Your task to perform on an android device: Open Youtube and go to "Your channel" Image 0: 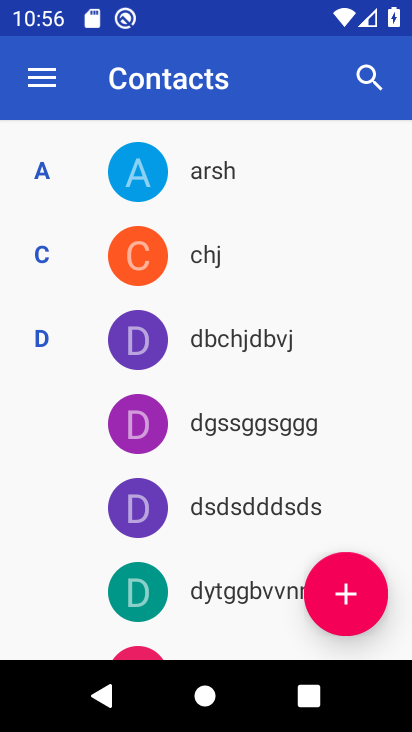
Step 0: press back button
Your task to perform on an android device: Open Youtube and go to "Your channel" Image 1: 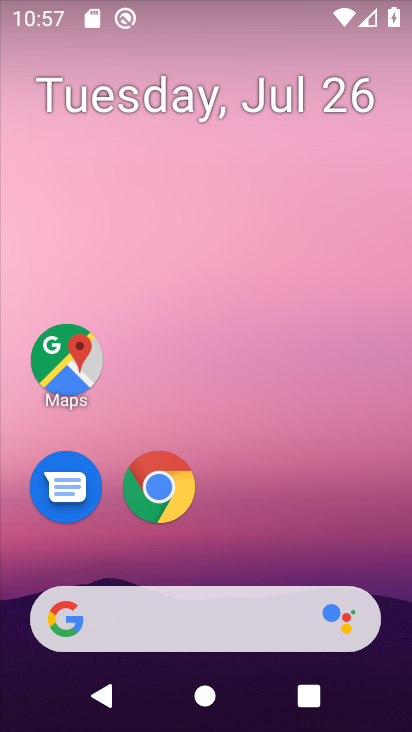
Step 1: drag from (256, 566) to (315, 0)
Your task to perform on an android device: Open Youtube and go to "Your channel" Image 2: 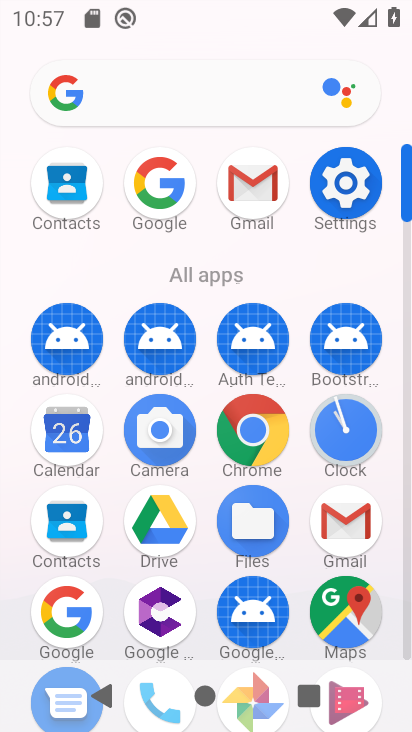
Step 2: drag from (161, 575) to (249, 30)
Your task to perform on an android device: Open Youtube and go to "Your channel" Image 3: 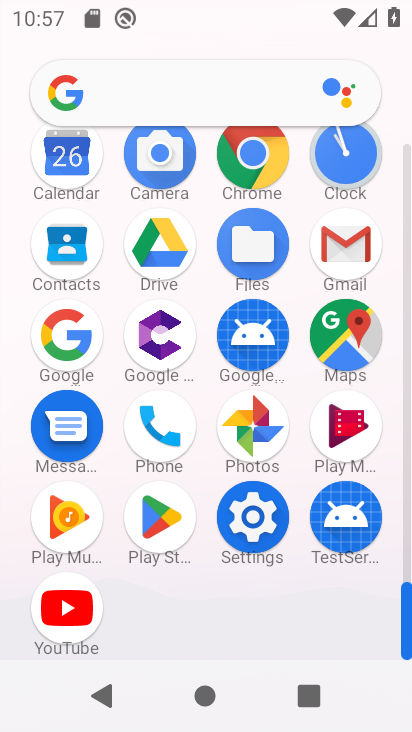
Step 3: click (54, 605)
Your task to perform on an android device: Open Youtube and go to "Your channel" Image 4: 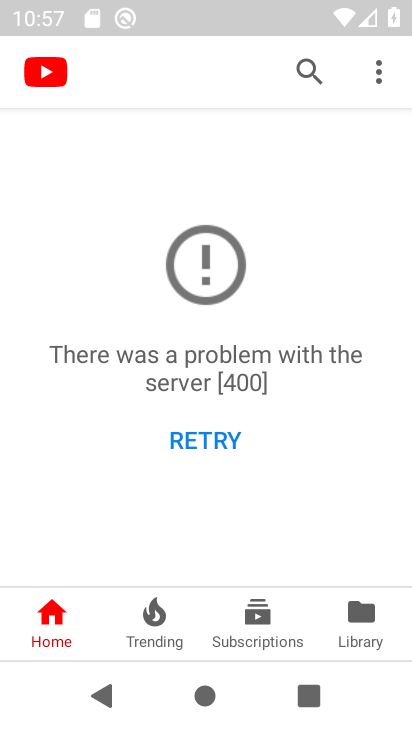
Step 4: task complete